Your task to perform on an android device: choose inbox layout in the gmail app Image 0: 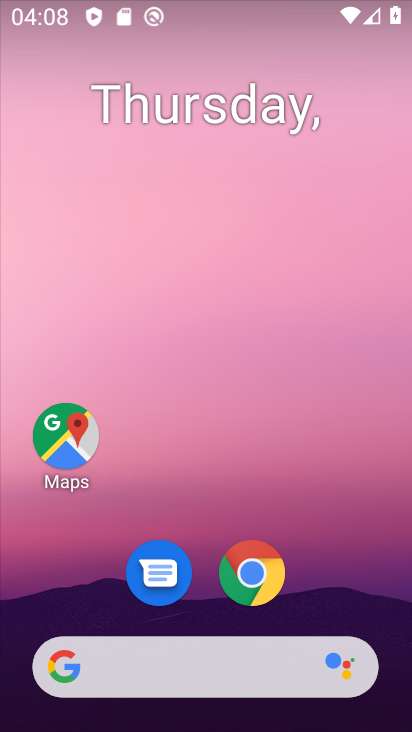
Step 0: drag from (391, 631) to (305, 121)
Your task to perform on an android device: choose inbox layout in the gmail app Image 1: 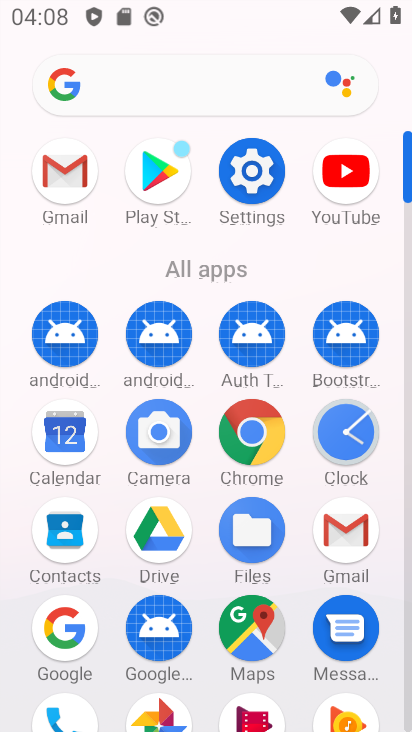
Step 1: click (404, 692)
Your task to perform on an android device: choose inbox layout in the gmail app Image 2: 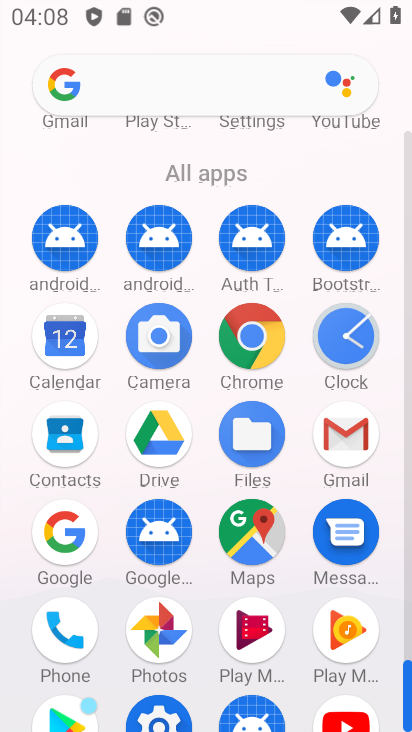
Step 2: click (346, 434)
Your task to perform on an android device: choose inbox layout in the gmail app Image 3: 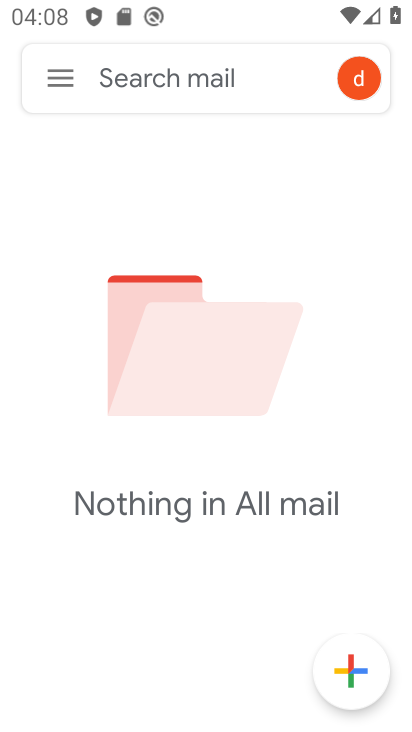
Step 3: click (63, 78)
Your task to perform on an android device: choose inbox layout in the gmail app Image 4: 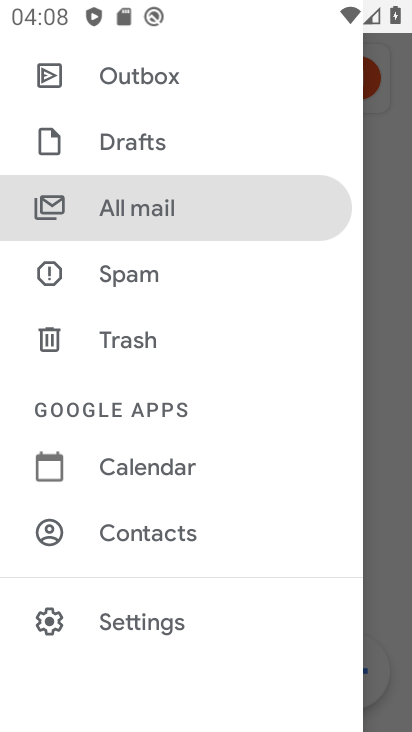
Step 4: click (148, 620)
Your task to perform on an android device: choose inbox layout in the gmail app Image 5: 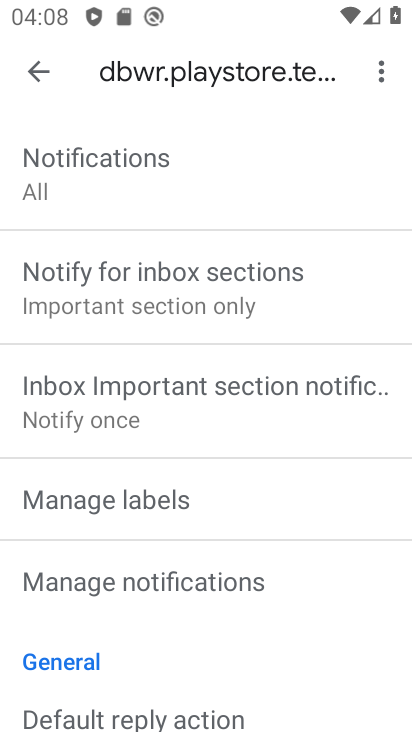
Step 5: drag from (213, 176) to (222, 600)
Your task to perform on an android device: choose inbox layout in the gmail app Image 6: 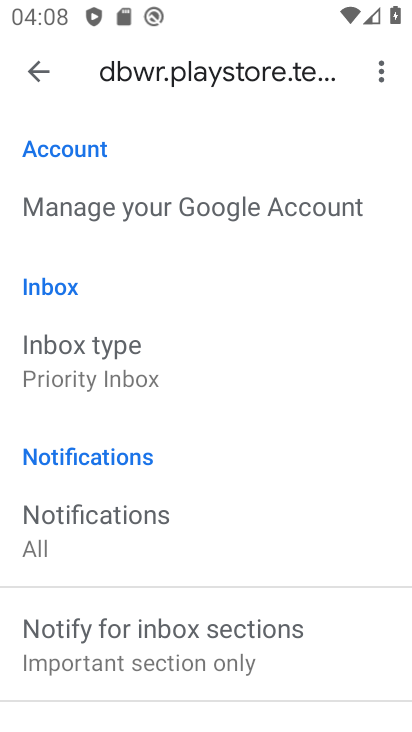
Step 6: click (51, 361)
Your task to perform on an android device: choose inbox layout in the gmail app Image 7: 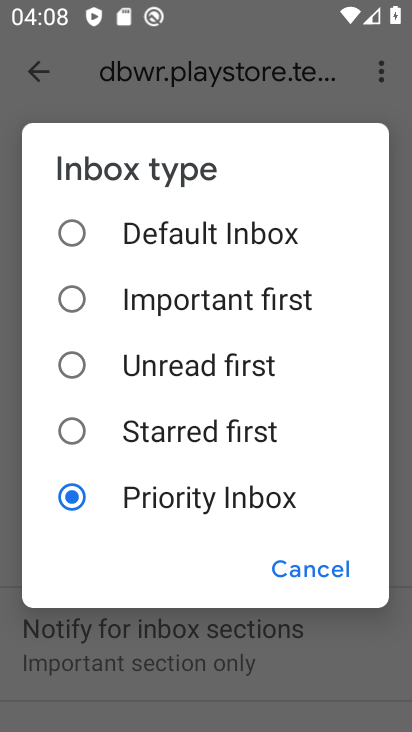
Step 7: click (67, 219)
Your task to perform on an android device: choose inbox layout in the gmail app Image 8: 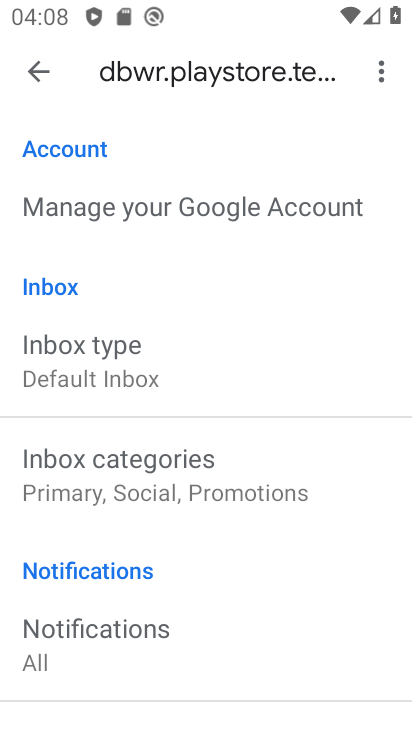
Step 8: task complete